Your task to perform on an android device: Show me productivity apps on the Play Store Image 0: 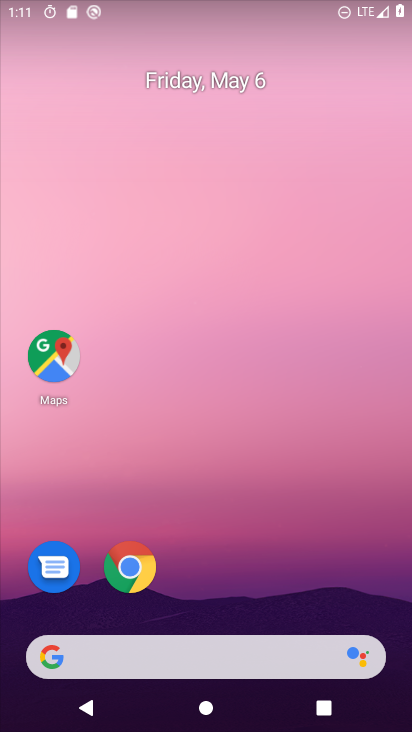
Step 0: drag from (318, 610) to (266, 8)
Your task to perform on an android device: Show me productivity apps on the Play Store Image 1: 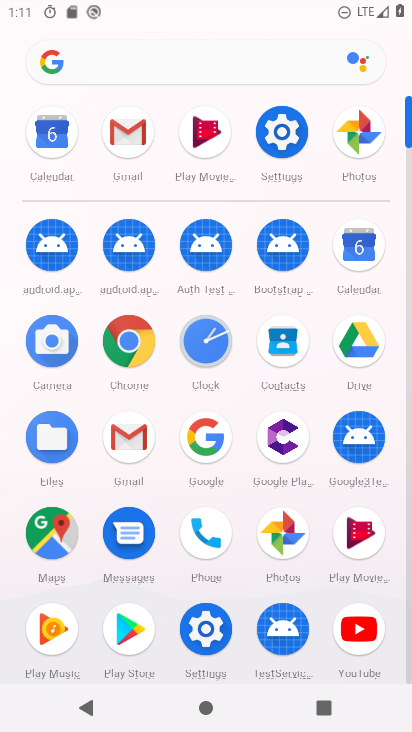
Step 1: click (140, 629)
Your task to perform on an android device: Show me productivity apps on the Play Store Image 2: 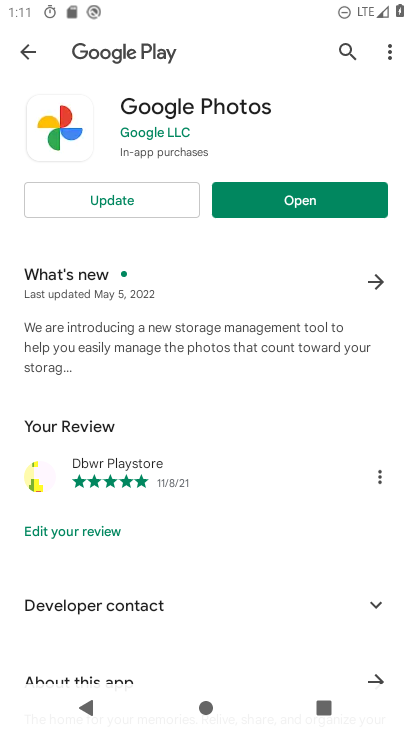
Step 2: click (28, 49)
Your task to perform on an android device: Show me productivity apps on the Play Store Image 3: 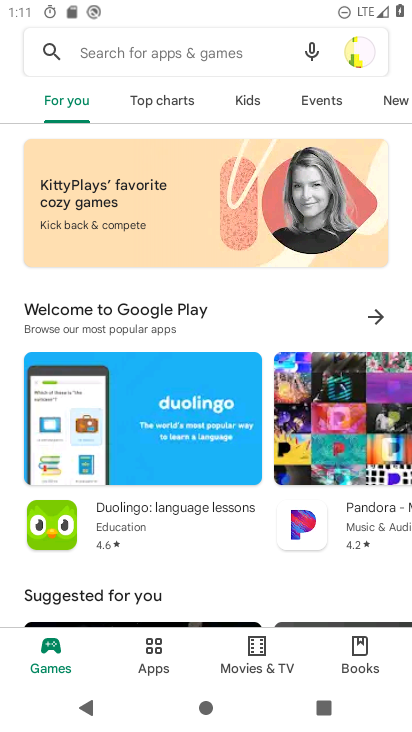
Step 3: click (158, 656)
Your task to perform on an android device: Show me productivity apps on the Play Store Image 4: 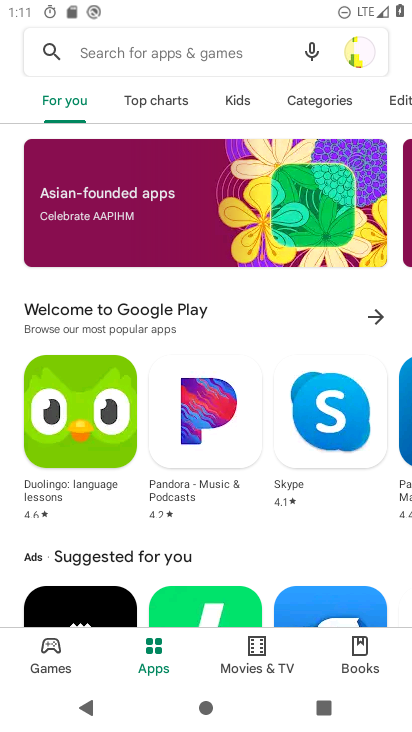
Step 4: click (326, 107)
Your task to perform on an android device: Show me productivity apps on the Play Store Image 5: 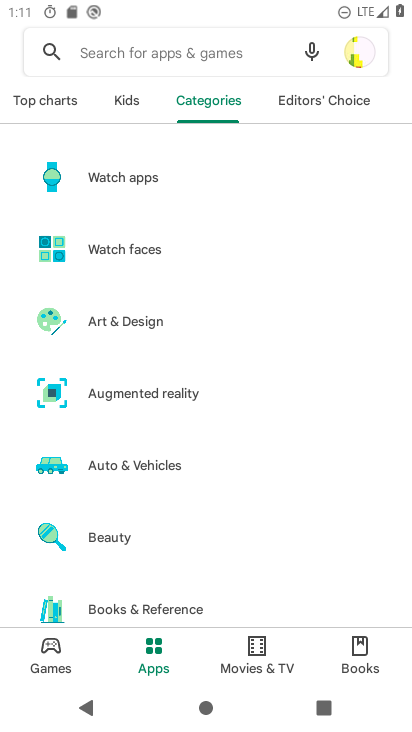
Step 5: drag from (234, 518) to (213, 167)
Your task to perform on an android device: Show me productivity apps on the Play Store Image 6: 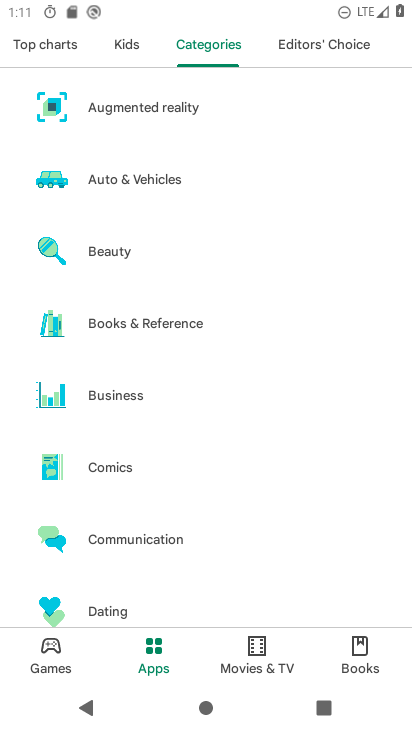
Step 6: drag from (180, 482) to (191, 143)
Your task to perform on an android device: Show me productivity apps on the Play Store Image 7: 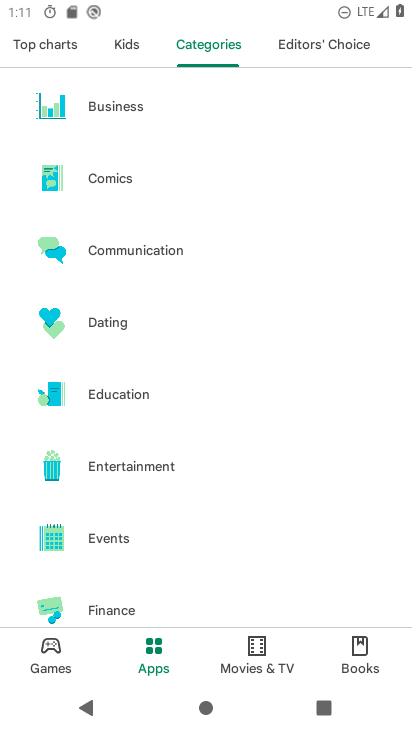
Step 7: drag from (192, 550) to (200, 139)
Your task to perform on an android device: Show me productivity apps on the Play Store Image 8: 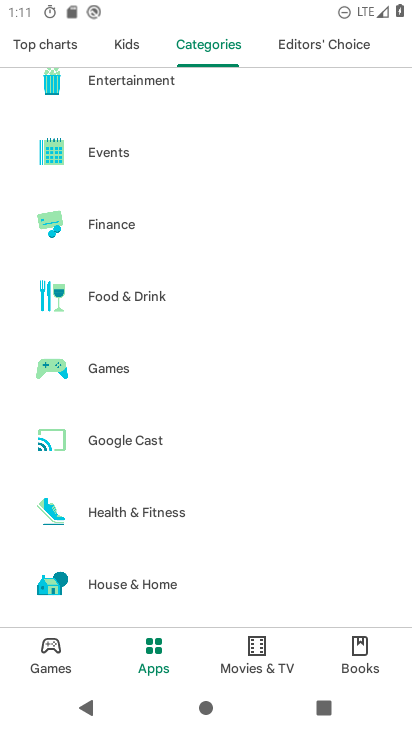
Step 8: drag from (207, 489) to (186, 121)
Your task to perform on an android device: Show me productivity apps on the Play Store Image 9: 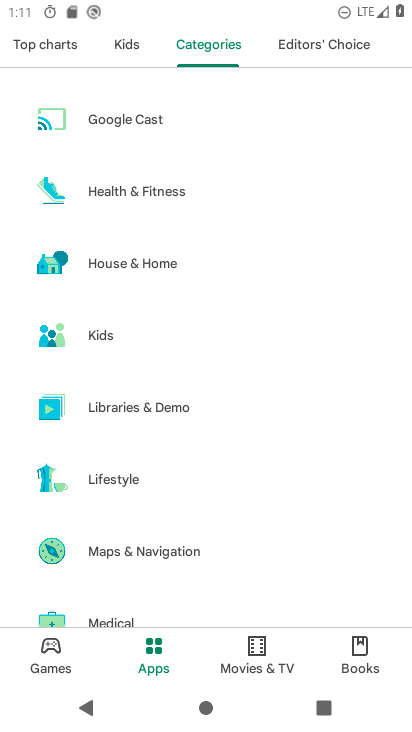
Step 9: drag from (185, 450) to (168, 113)
Your task to perform on an android device: Show me productivity apps on the Play Store Image 10: 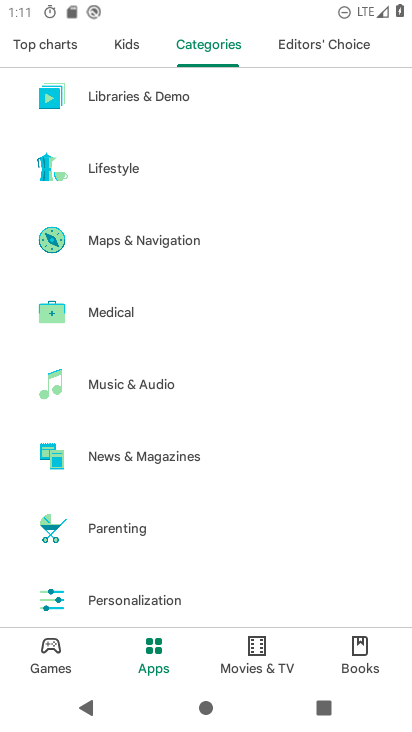
Step 10: drag from (172, 498) to (172, 192)
Your task to perform on an android device: Show me productivity apps on the Play Store Image 11: 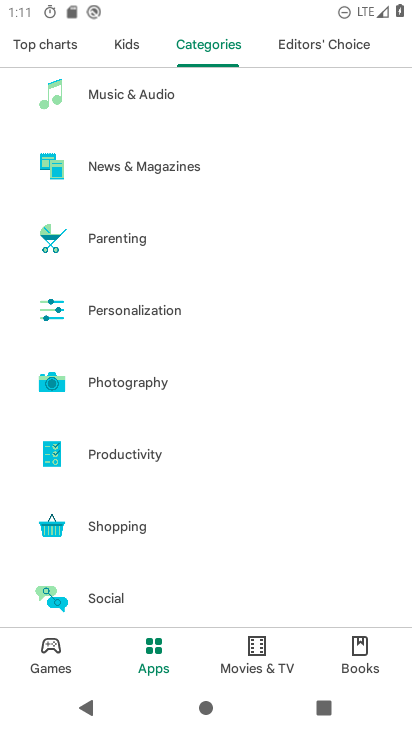
Step 11: click (119, 458)
Your task to perform on an android device: Show me productivity apps on the Play Store Image 12: 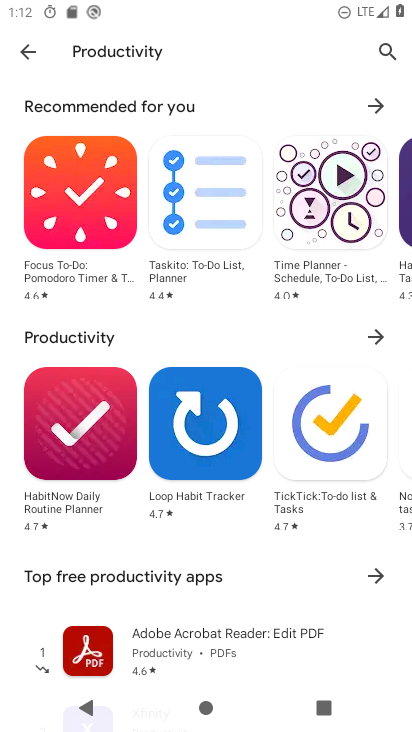
Step 12: task complete